Your task to perform on an android device: Check the weather Image 0: 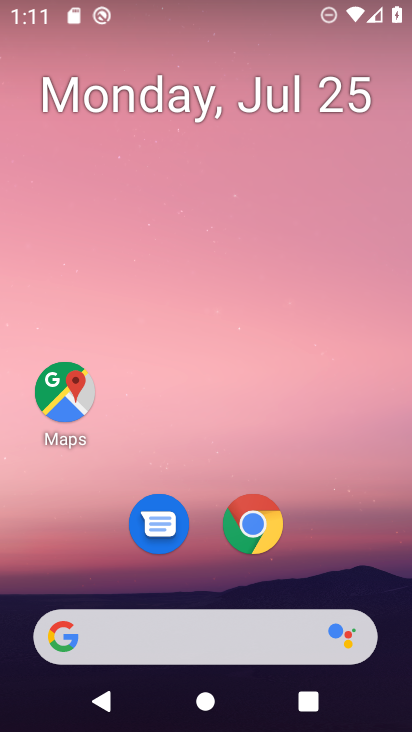
Step 0: click (169, 633)
Your task to perform on an android device: Check the weather Image 1: 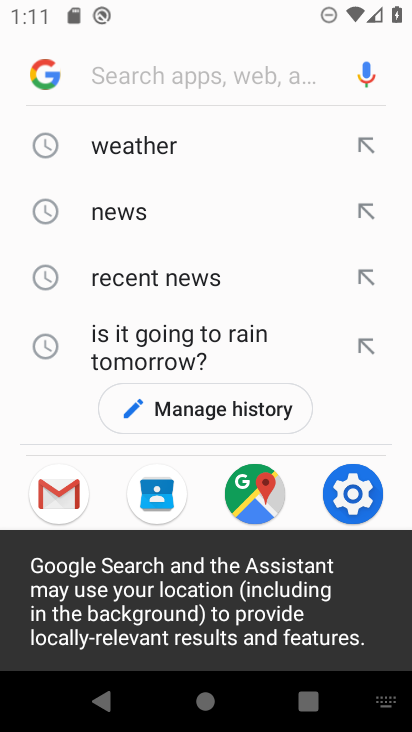
Step 1: click (156, 144)
Your task to perform on an android device: Check the weather Image 2: 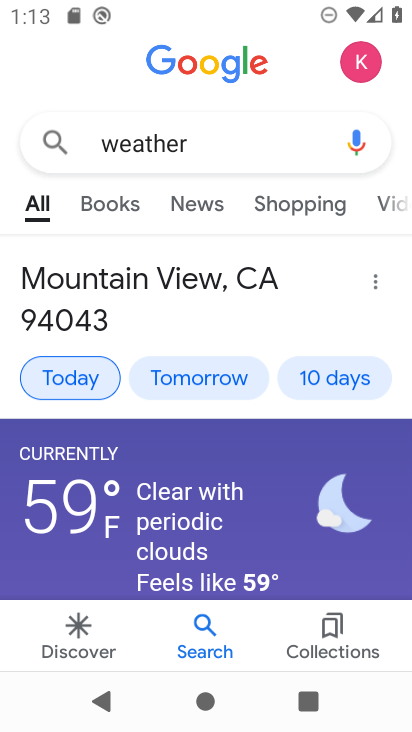
Step 2: task complete